Your task to perform on an android device: see tabs open on other devices in the chrome app Image 0: 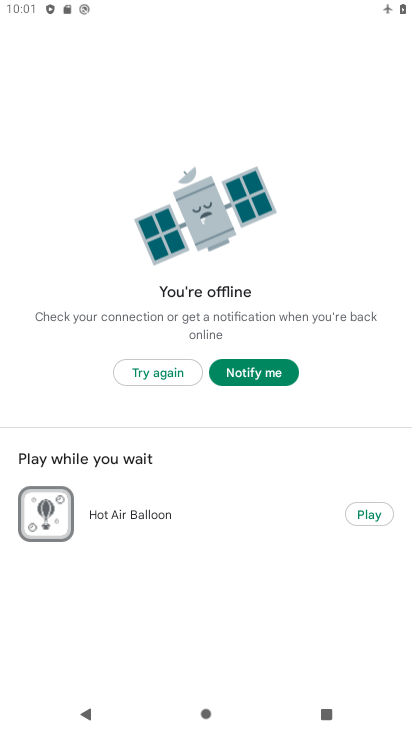
Step 0: press home button
Your task to perform on an android device: see tabs open on other devices in the chrome app Image 1: 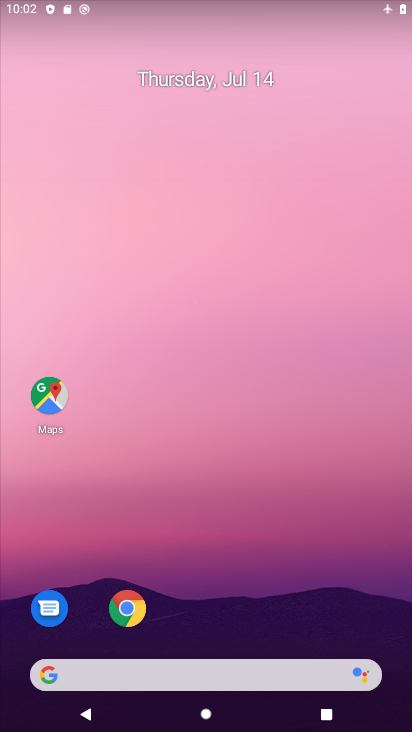
Step 1: drag from (259, 591) to (278, 7)
Your task to perform on an android device: see tabs open on other devices in the chrome app Image 2: 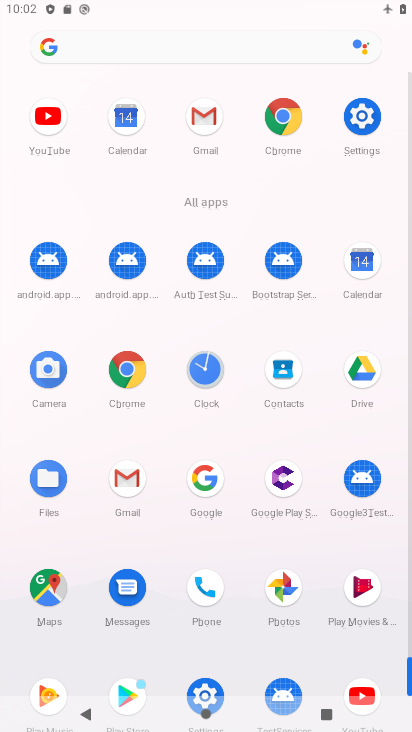
Step 2: click (134, 379)
Your task to perform on an android device: see tabs open on other devices in the chrome app Image 3: 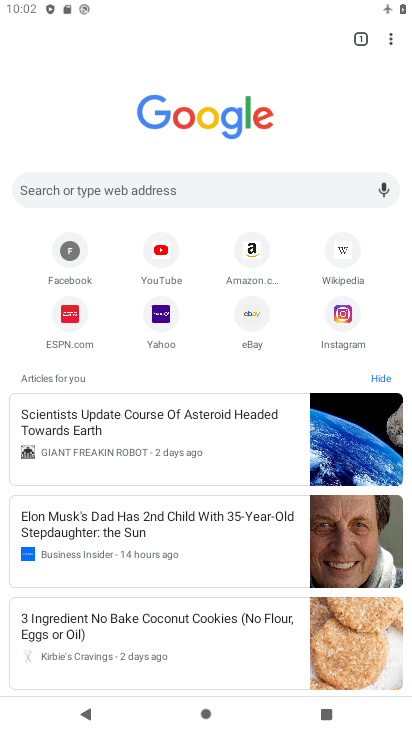
Step 3: click (390, 37)
Your task to perform on an android device: see tabs open on other devices in the chrome app Image 4: 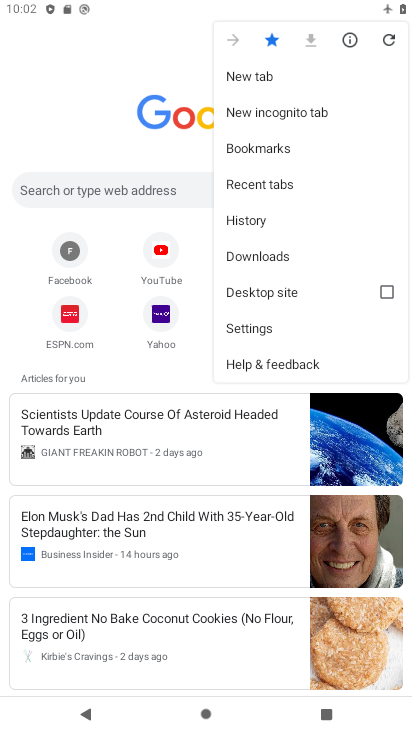
Step 4: click (271, 187)
Your task to perform on an android device: see tabs open on other devices in the chrome app Image 5: 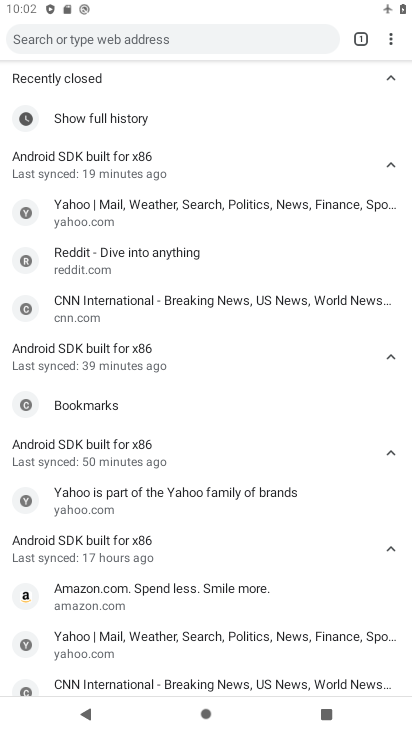
Step 5: task complete